Your task to perform on an android device: stop showing notifications on the lock screen Image 0: 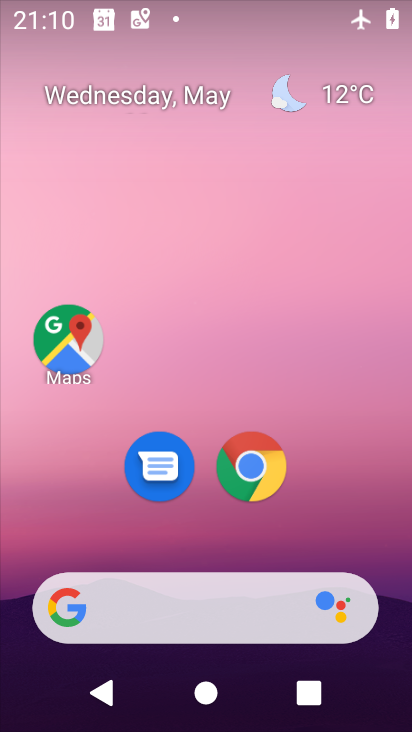
Step 0: drag from (203, 525) to (197, 75)
Your task to perform on an android device: stop showing notifications on the lock screen Image 1: 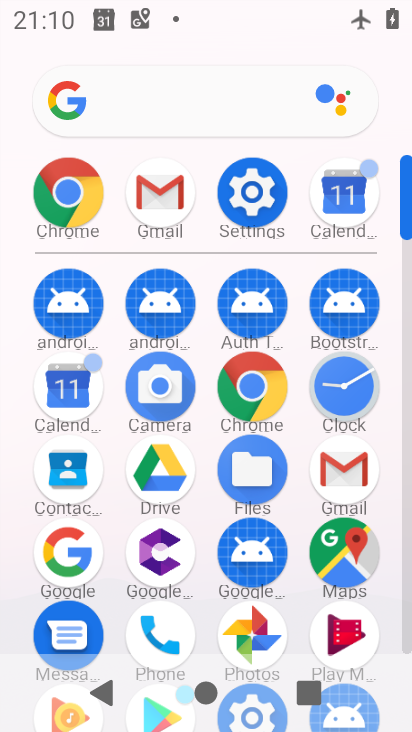
Step 1: click (248, 185)
Your task to perform on an android device: stop showing notifications on the lock screen Image 2: 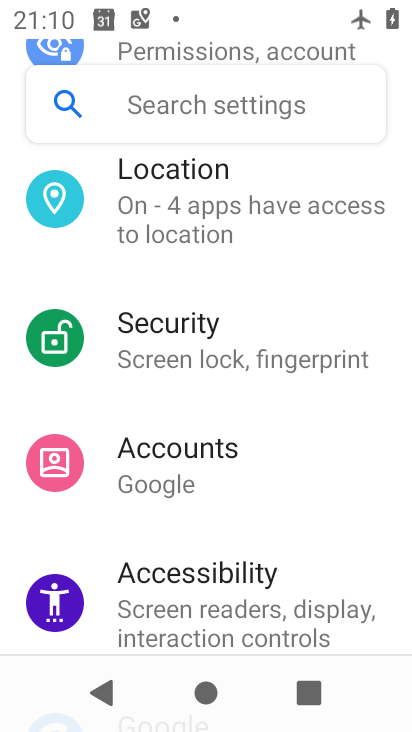
Step 2: drag from (200, 198) to (213, 691)
Your task to perform on an android device: stop showing notifications on the lock screen Image 3: 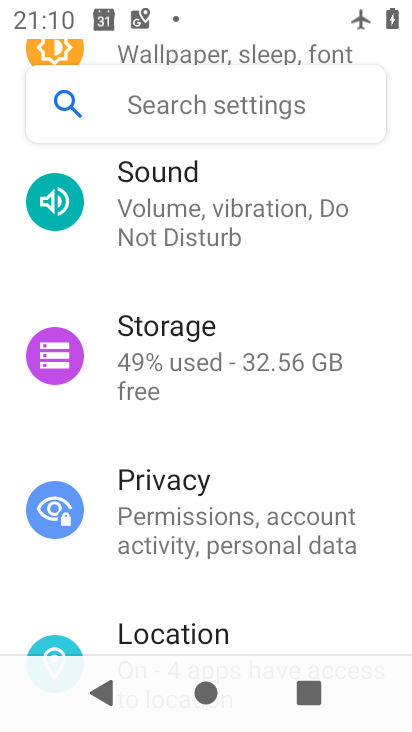
Step 3: drag from (221, 195) to (209, 650)
Your task to perform on an android device: stop showing notifications on the lock screen Image 4: 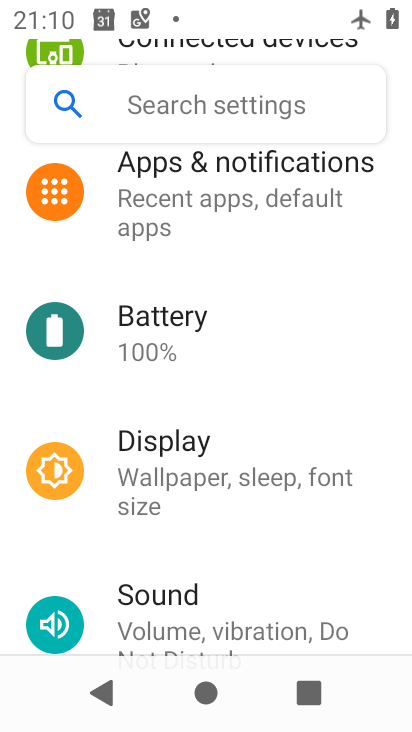
Step 4: click (198, 205)
Your task to perform on an android device: stop showing notifications on the lock screen Image 5: 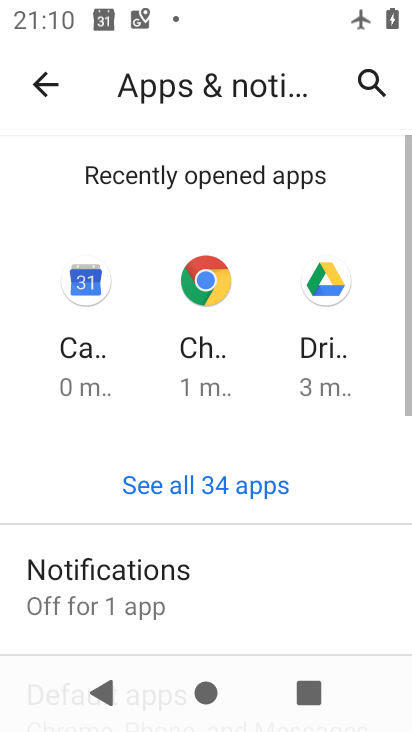
Step 5: drag from (179, 613) to (191, 538)
Your task to perform on an android device: stop showing notifications on the lock screen Image 6: 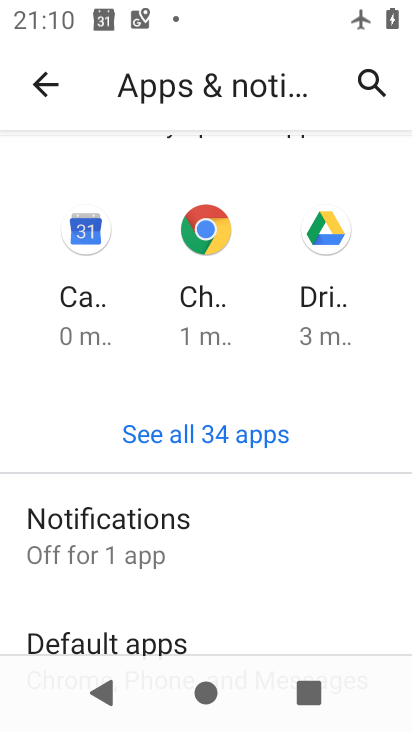
Step 6: click (191, 538)
Your task to perform on an android device: stop showing notifications on the lock screen Image 7: 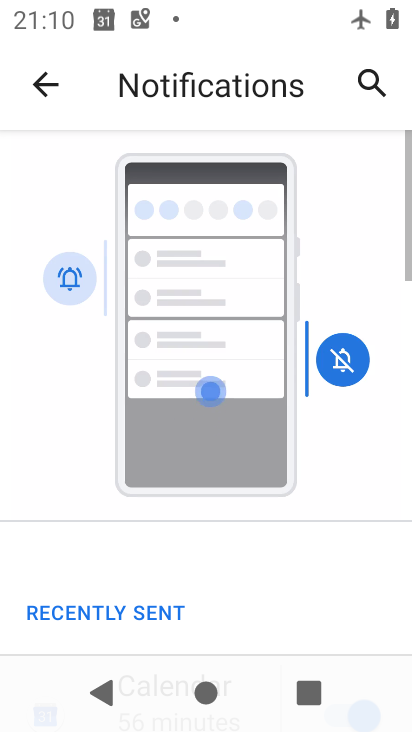
Step 7: drag from (213, 618) to (216, 376)
Your task to perform on an android device: stop showing notifications on the lock screen Image 8: 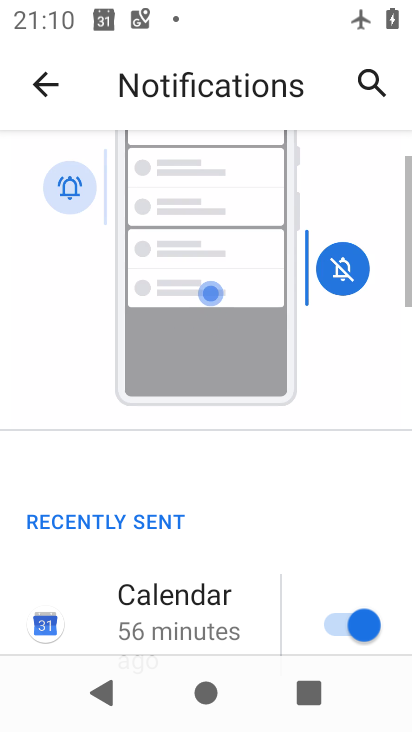
Step 8: drag from (216, 141) to (216, 84)
Your task to perform on an android device: stop showing notifications on the lock screen Image 9: 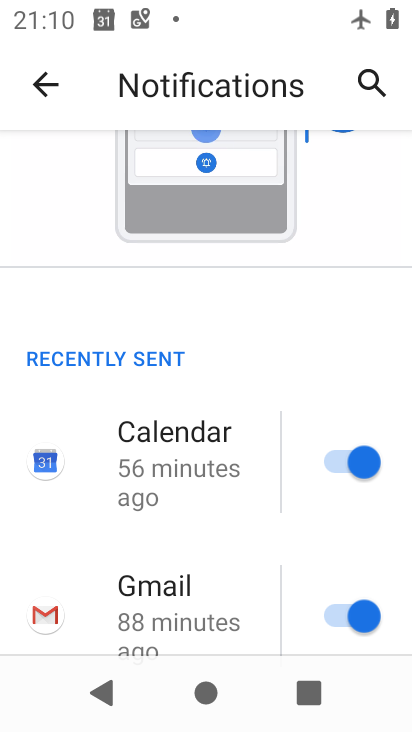
Step 9: drag from (193, 432) to (205, 140)
Your task to perform on an android device: stop showing notifications on the lock screen Image 10: 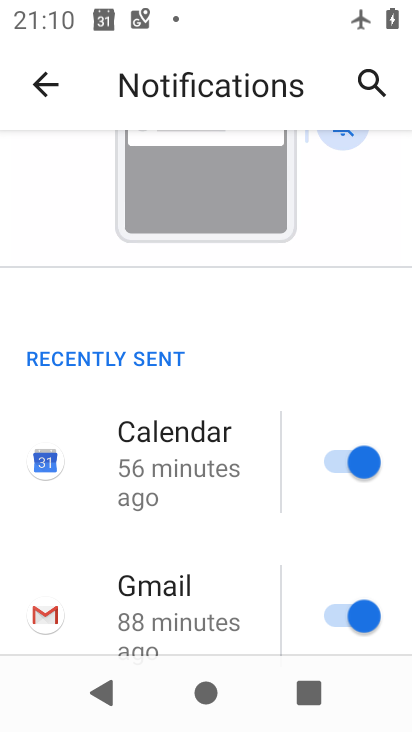
Step 10: drag from (214, 459) to (219, 90)
Your task to perform on an android device: stop showing notifications on the lock screen Image 11: 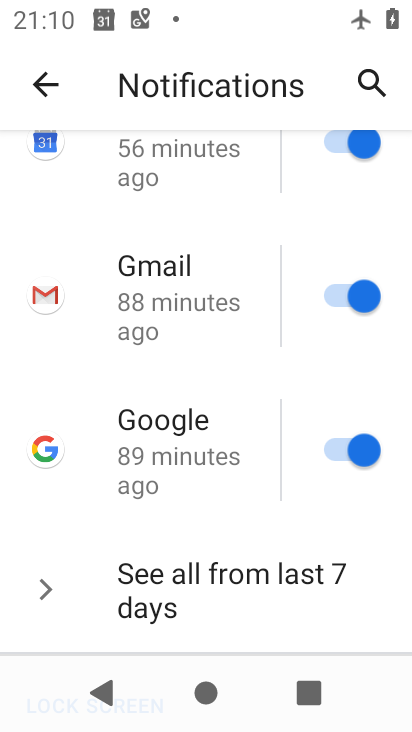
Step 11: drag from (184, 582) to (189, 136)
Your task to perform on an android device: stop showing notifications on the lock screen Image 12: 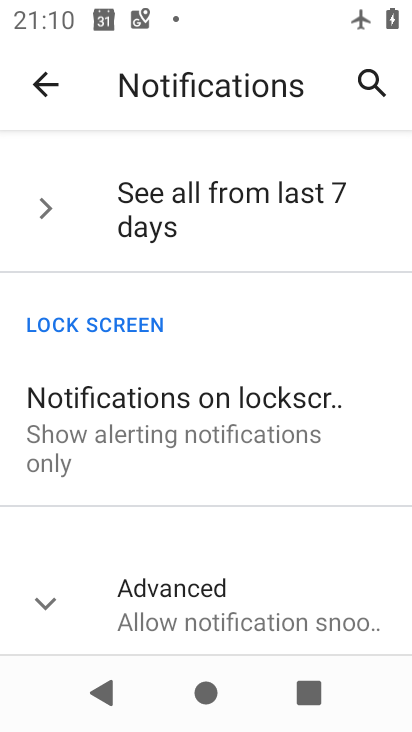
Step 12: click (188, 434)
Your task to perform on an android device: stop showing notifications on the lock screen Image 13: 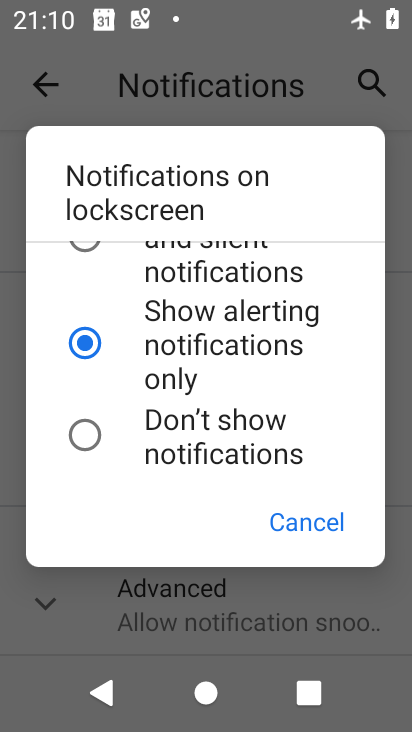
Step 13: click (79, 439)
Your task to perform on an android device: stop showing notifications on the lock screen Image 14: 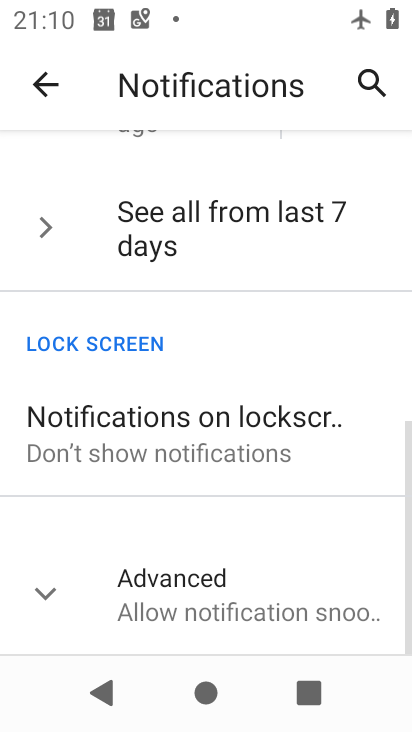
Step 14: task complete